Your task to perform on an android device: uninstall "Gmail" Image 0: 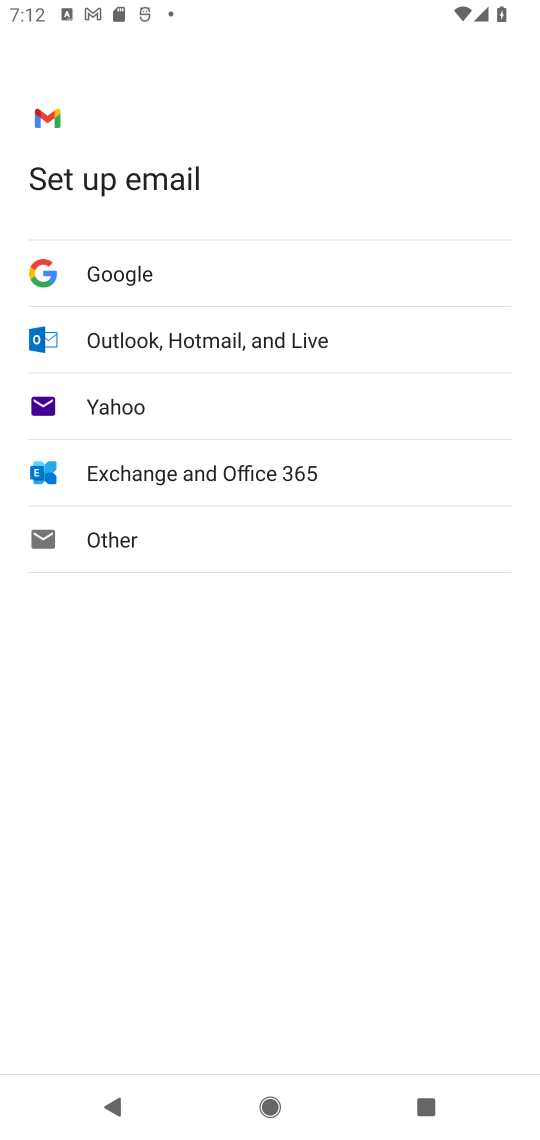
Step 0: press back button
Your task to perform on an android device: uninstall "Gmail" Image 1: 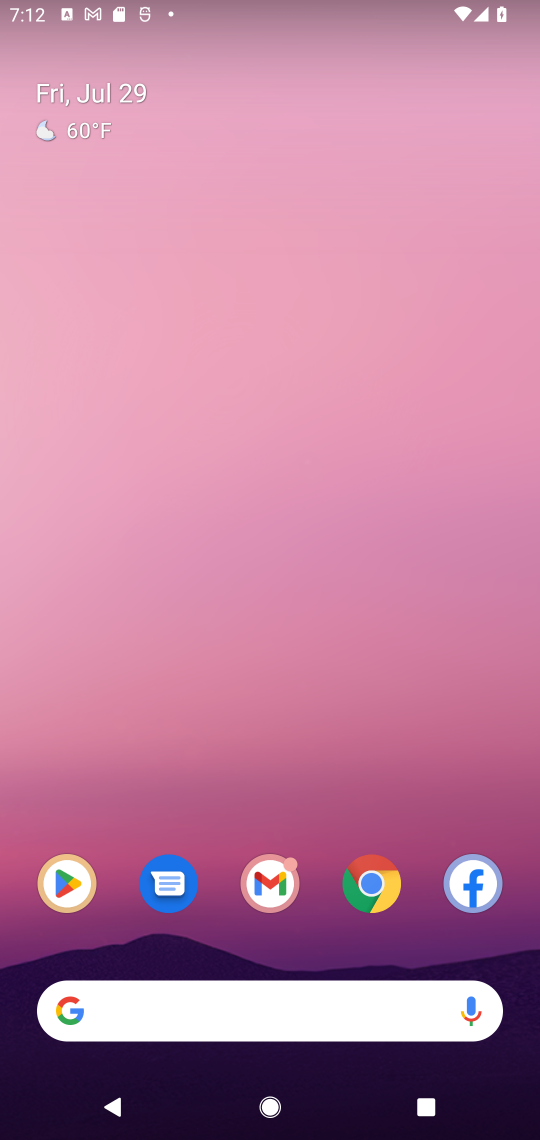
Step 1: click (60, 873)
Your task to perform on an android device: uninstall "Gmail" Image 2: 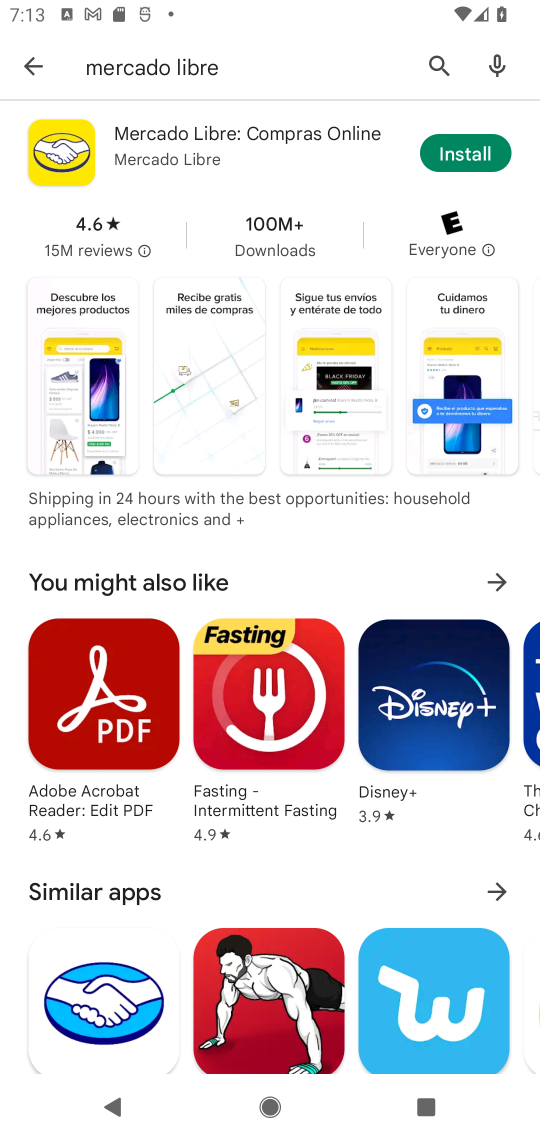
Step 2: click (443, 63)
Your task to perform on an android device: uninstall "Gmail" Image 3: 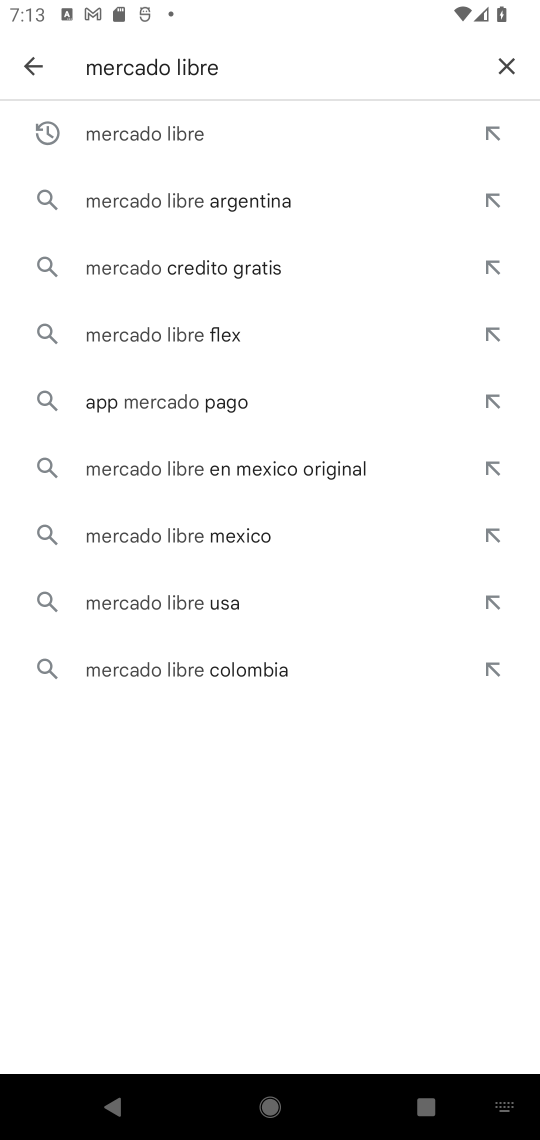
Step 3: click (510, 51)
Your task to perform on an android device: uninstall "Gmail" Image 4: 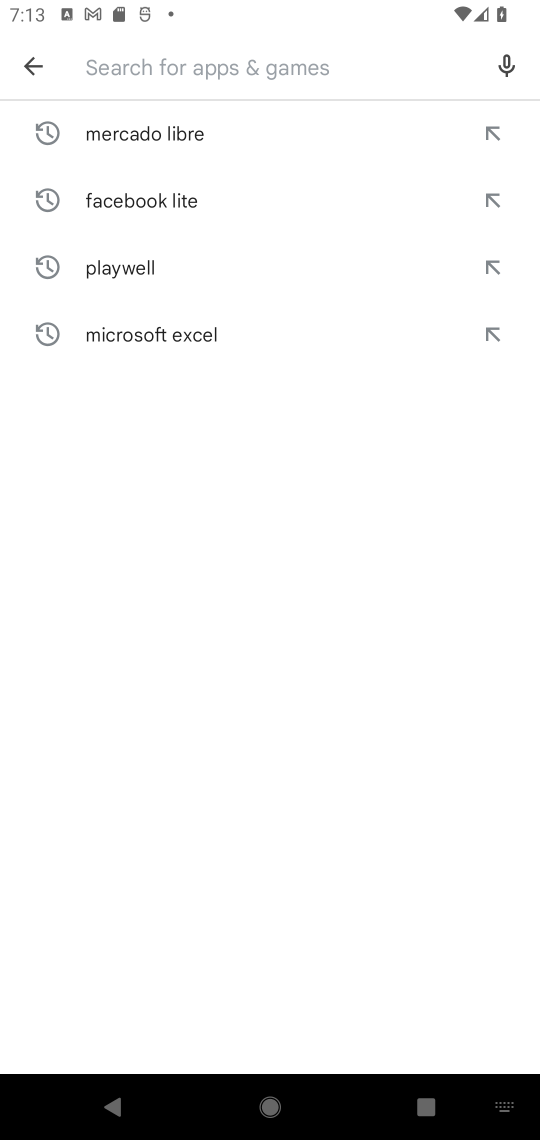
Step 4: click (258, 57)
Your task to perform on an android device: uninstall "Gmail" Image 5: 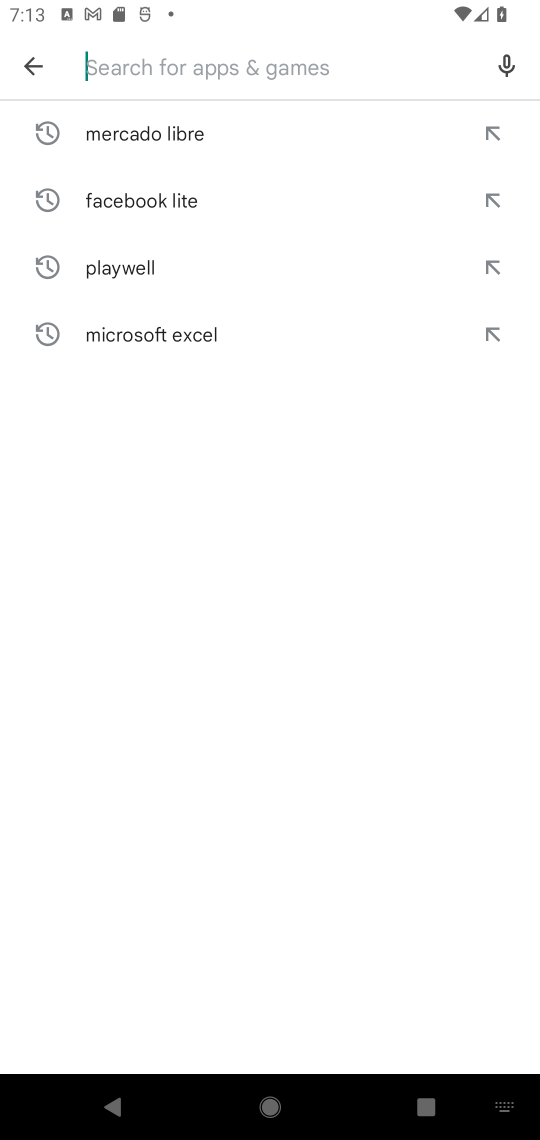
Step 5: type "gmail"
Your task to perform on an android device: uninstall "Gmail" Image 6: 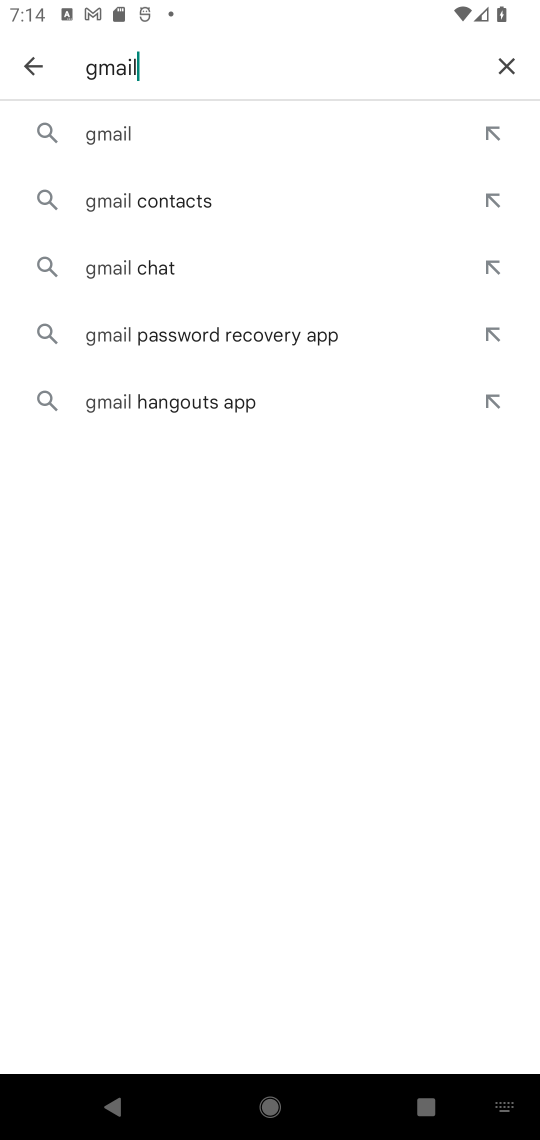
Step 6: click (145, 121)
Your task to perform on an android device: uninstall "Gmail" Image 7: 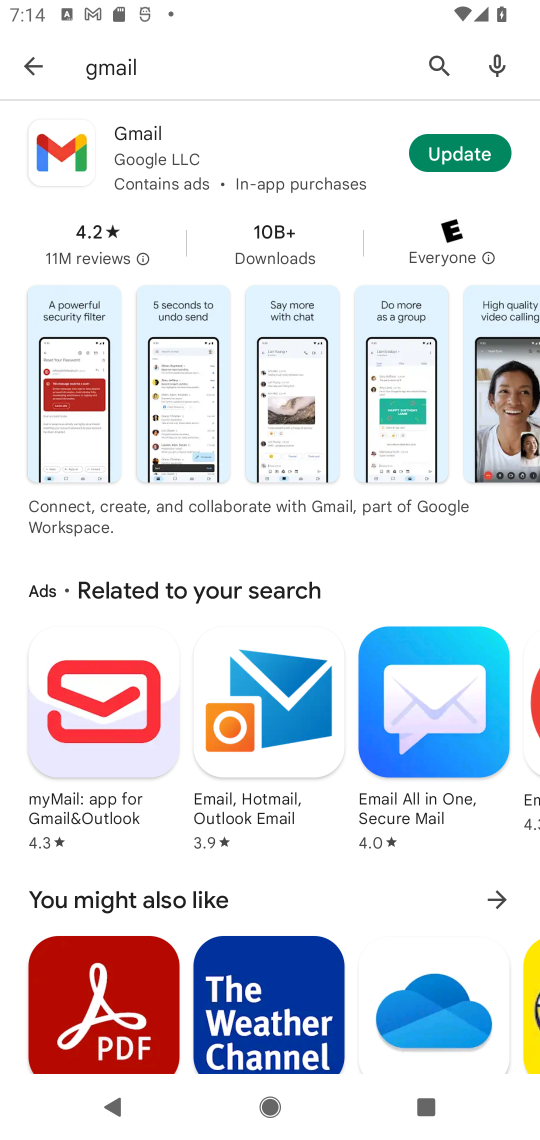
Step 7: click (150, 156)
Your task to perform on an android device: uninstall "Gmail" Image 8: 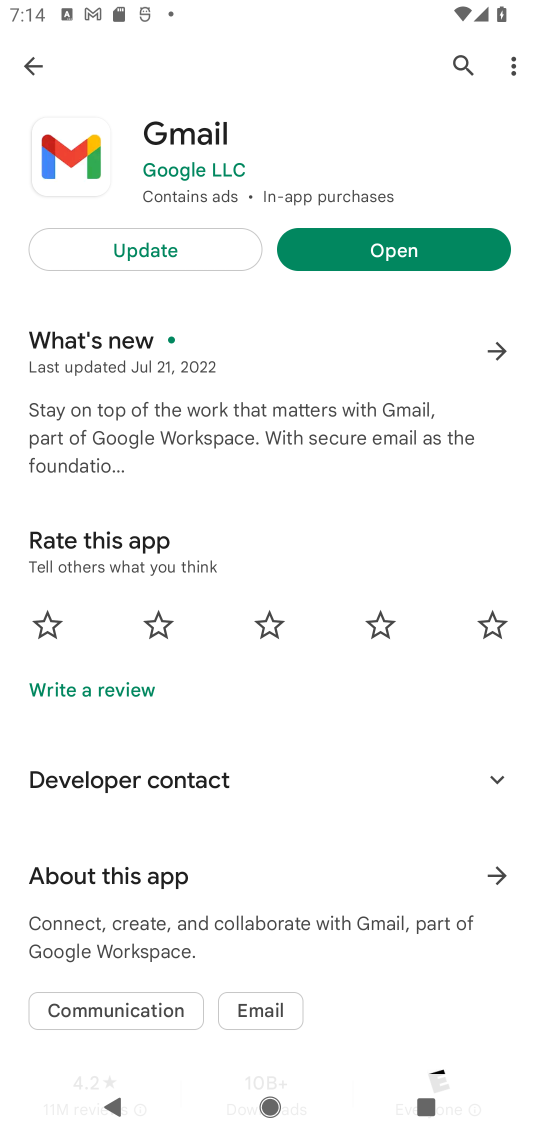
Step 8: task complete